Your task to perform on an android device: see sites visited before in the chrome app Image 0: 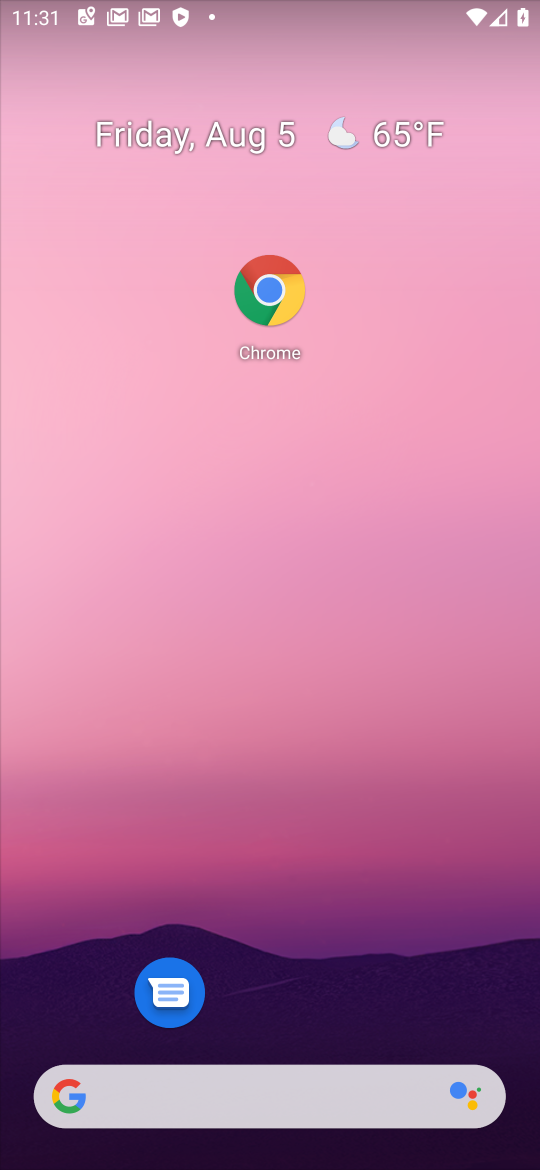
Step 0: drag from (289, 1121) to (265, 68)
Your task to perform on an android device: see sites visited before in the chrome app Image 1: 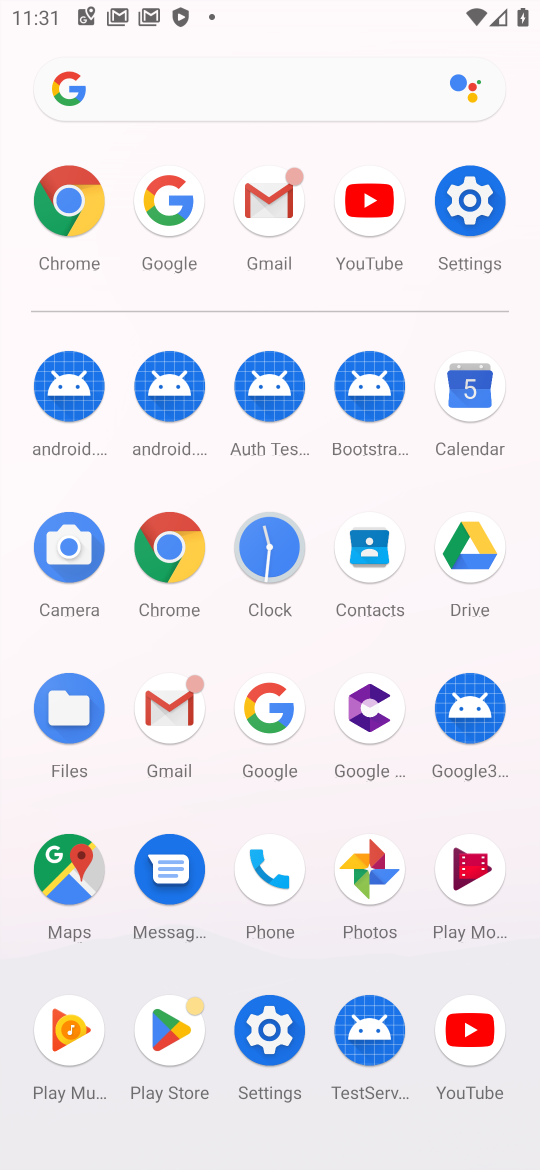
Step 1: click (88, 222)
Your task to perform on an android device: see sites visited before in the chrome app Image 2: 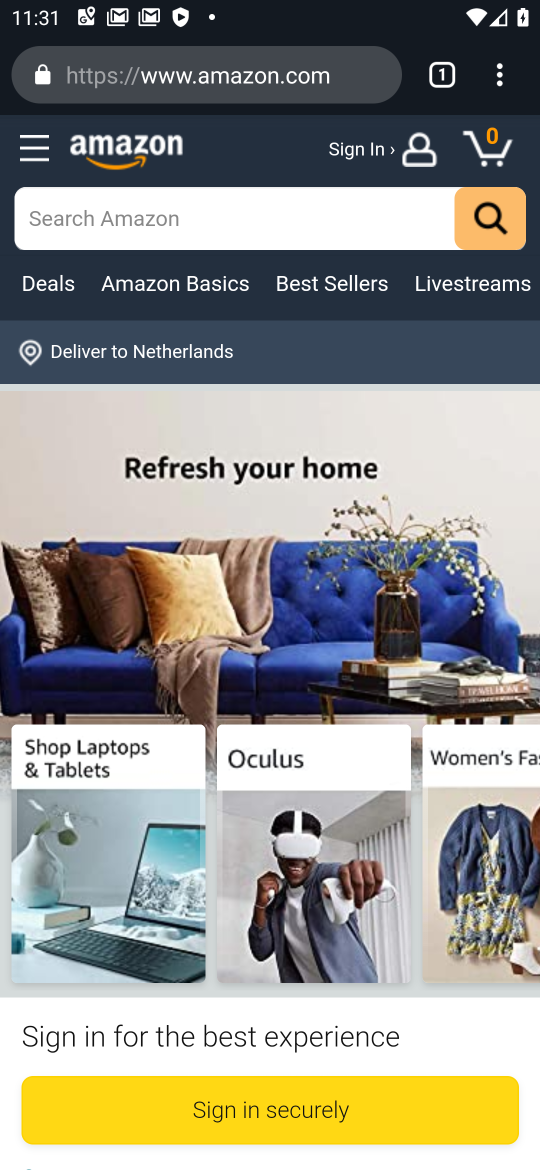
Step 2: task complete